Your task to perform on an android device: open app "Contacts" (install if not already installed) Image 0: 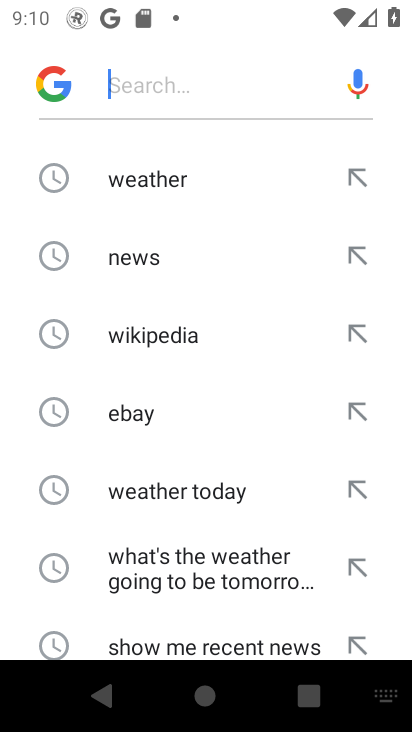
Step 0: press back button
Your task to perform on an android device: open app "Contacts" (install if not already installed) Image 1: 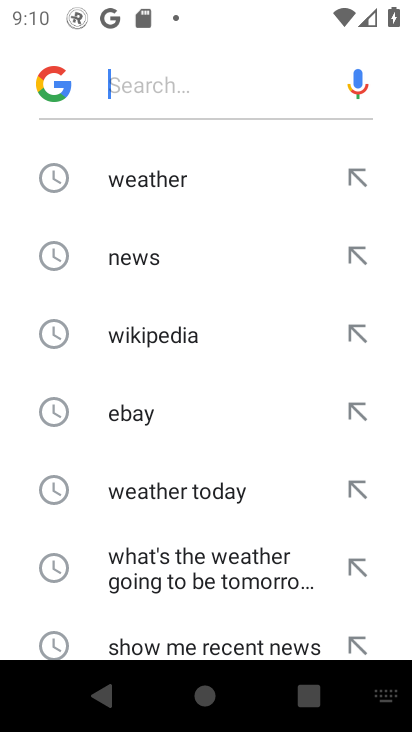
Step 1: press back button
Your task to perform on an android device: open app "Contacts" (install if not already installed) Image 2: 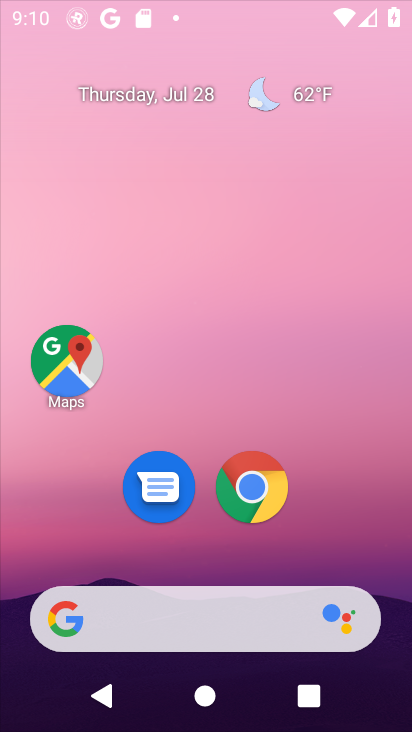
Step 2: press back button
Your task to perform on an android device: open app "Contacts" (install if not already installed) Image 3: 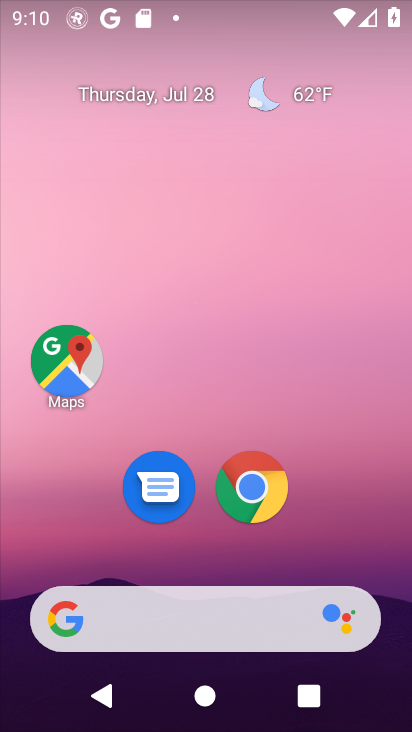
Step 3: drag from (249, 522) to (207, 204)
Your task to perform on an android device: open app "Contacts" (install if not already installed) Image 4: 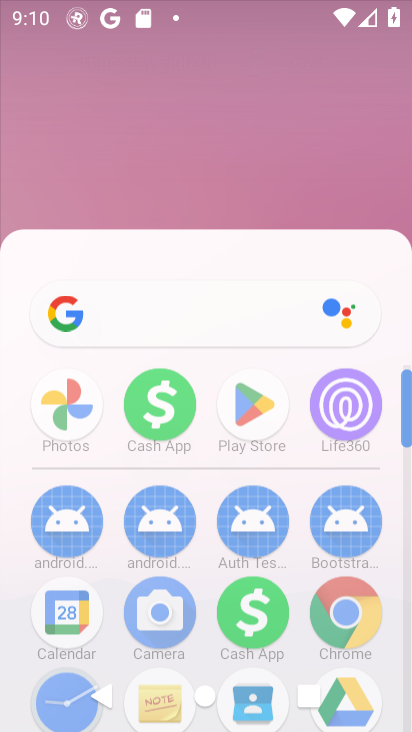
Step 4: drag from (263, 653) to (174, 131)
Your task to perform on an android device: open app "Contacts" (install if not already installed) Image 5: 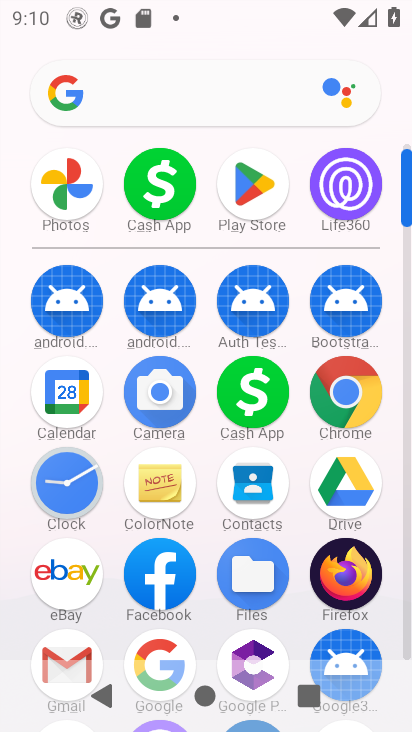
Step 5: drag from (216, 532) to (192, 84)
Your task to perform on an android device: open app "Contacts" (install if not already installed) Image 6: 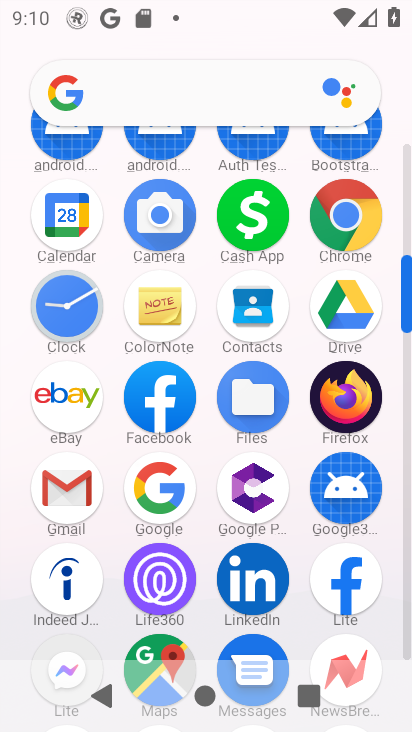
Step 6: click (252, 322)
Your task to perform on an android device: open app "Contacts" (install if not already installed) Image 7: 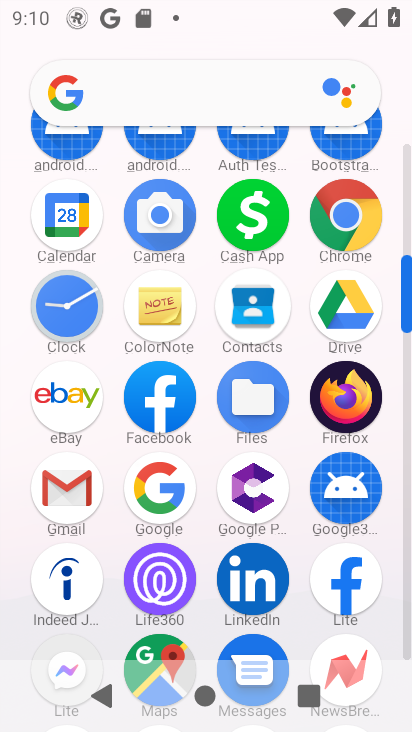
Step 7: click (255, 320)
Your task to perform on an android device: open app "Contacts" (install if not already installed) Image 8: 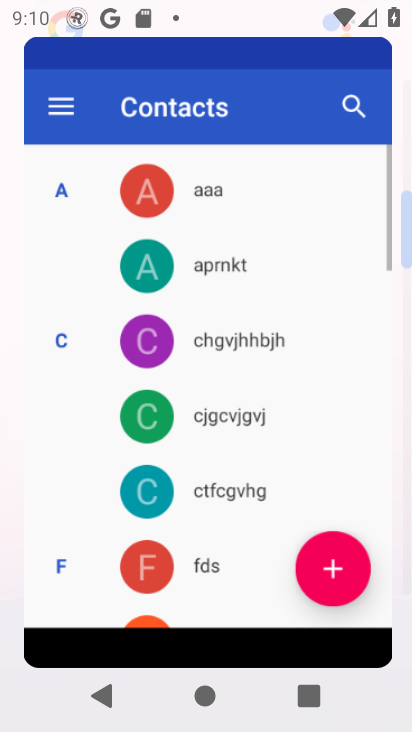
Step 8: click (255, 320)
Your task to perform on an android device: open app "Contacts" (install if not already installed) Image 9: 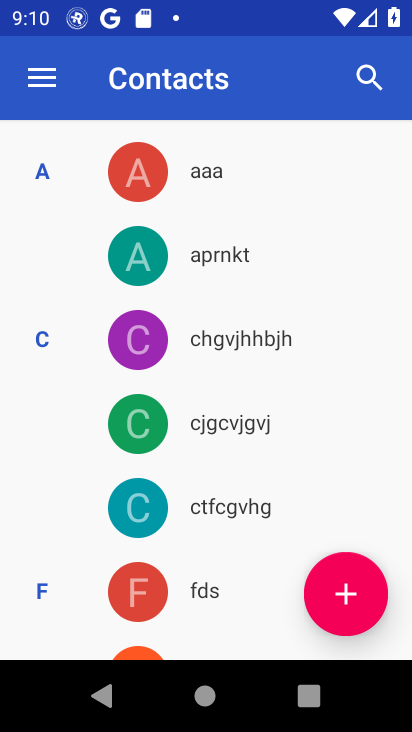
Step 9: press back button
Your task to perform on an android device: open app "Contacts" (install if not already installed) Image 10: 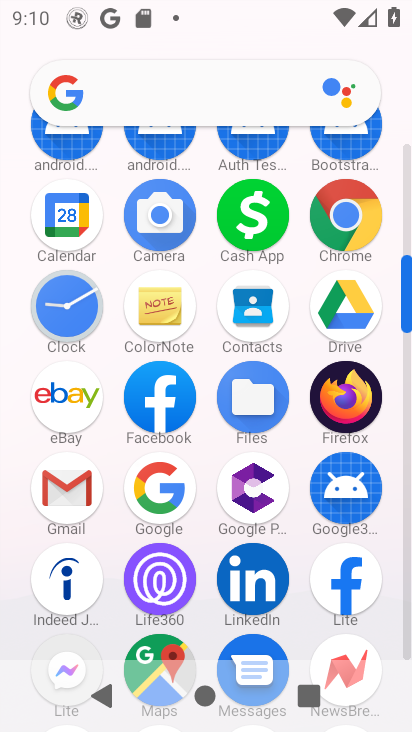
Step 10: click (243, 313)
Your task to perform on an android device: open app "Contacts" (install if not already installed) Image 11: 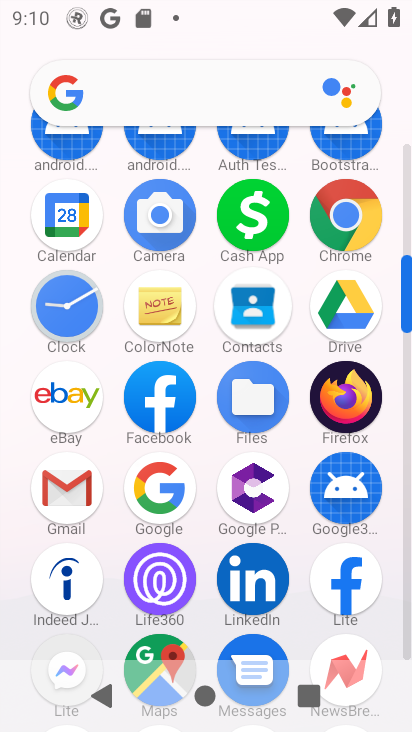
Step 11: click (249, 311)
Your task to perform on an android device: open app "Contacts" (install if not already installed) Image 12: 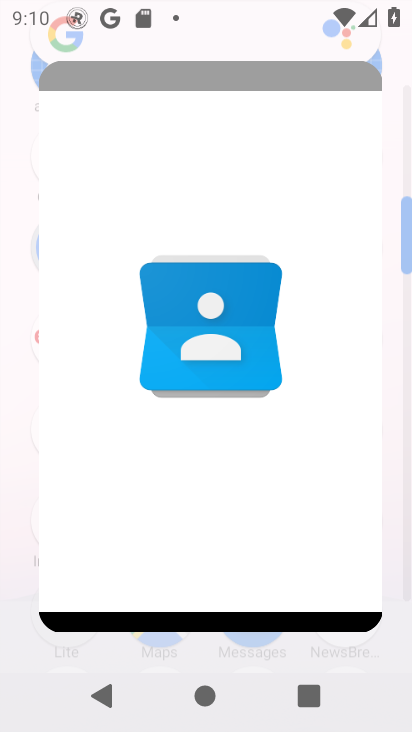
Step 12: click (249, 311)
Your task to perform on an android device: open app "Contacts" (install if not already installed) Image 13: 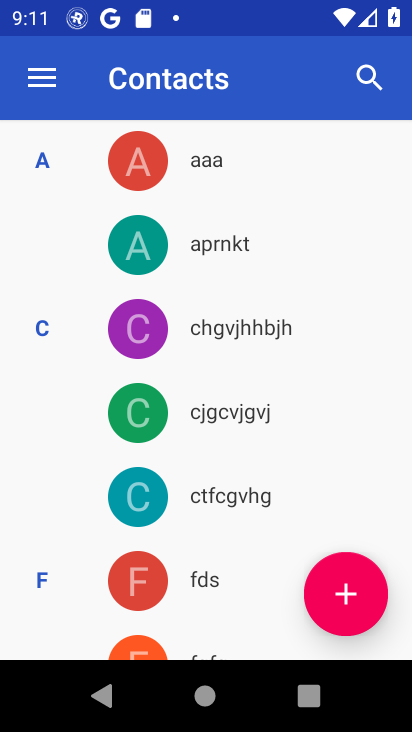
Step 13: task complete